Your task to perform on an android device: Search for Mexican restaurants on Maps Image 0: 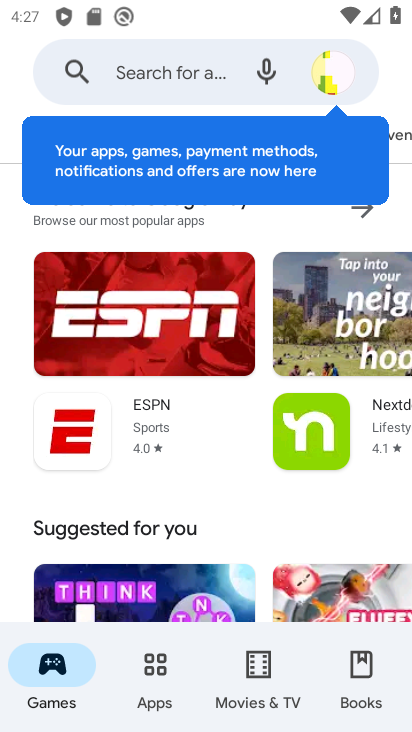
Step 0: press home button
Your task to perform on an android device: Search for Mexican restaurants on Maps Image 1: 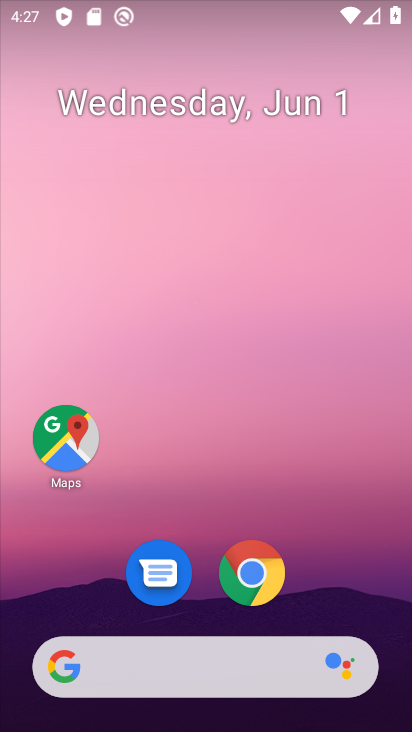
Step 1: drag from (161, 643) to (286, 143)
Your task to perform on an android device: Search for Mexican restaurants on Maps Image 2: 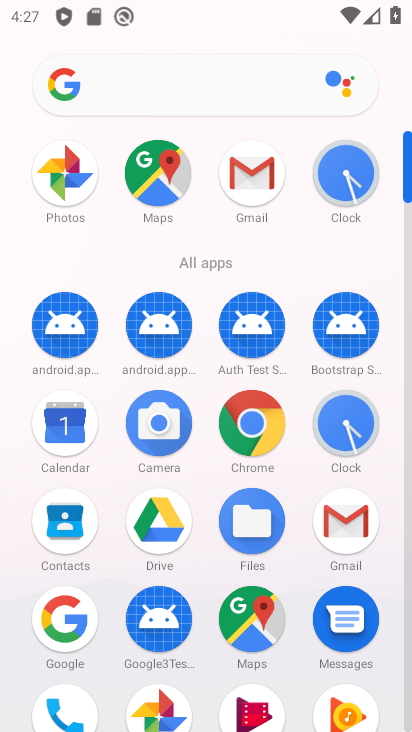
Step 2: drag from (154, 551) to (233, 290)
Your task to perform on an android device: Search for Mexican restaurants on Maps Image 3: 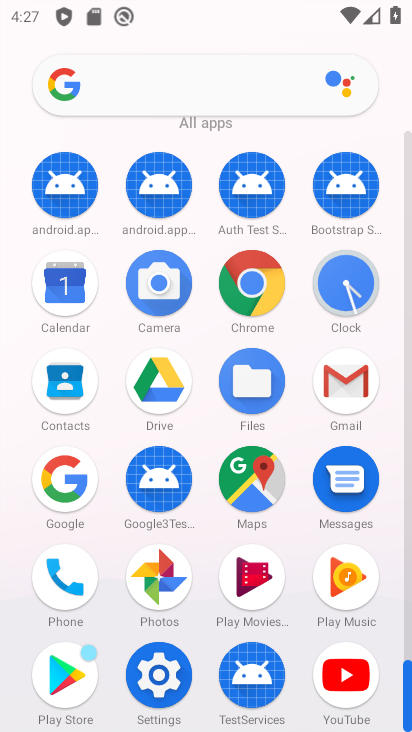
Step 3: click (242, 491)
Your task to perform on an android device: Search for Mexican restaurants on Maps Image 4: 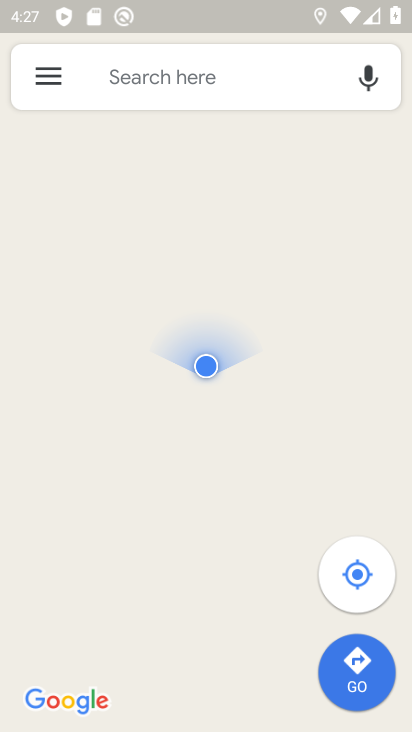
Step 4: click (183, 86)
Your task to perform on an android device: Search for Mexican restaurants on Maps Image 5: 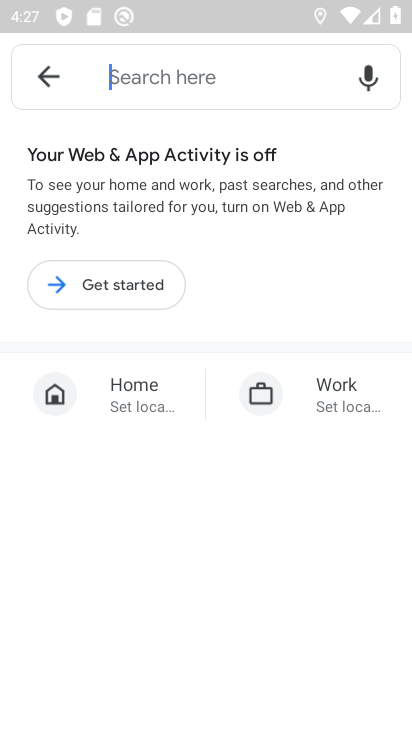
Step 5: click (228, 94)
Your task to perform on an android device: Search for Mexican restaurants on Maps Image 6: 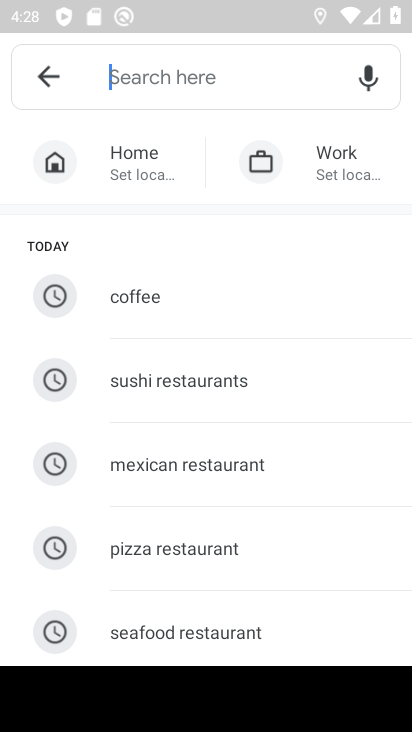
Step 6: type "Mexican restaurants"
Your task to perform on an android device: Search for Mexican restaurants on Maps Image 7: 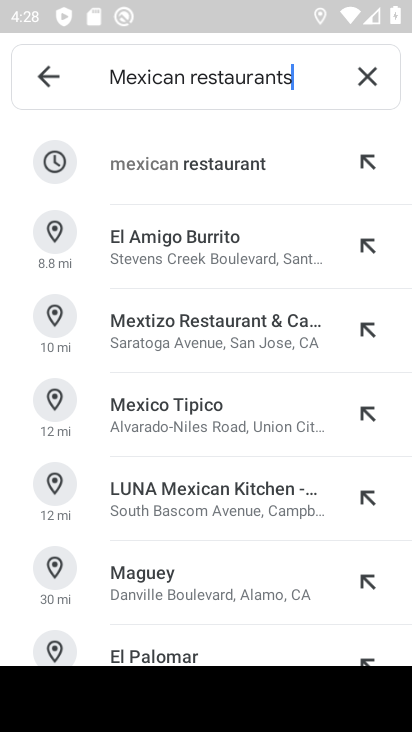
Step 7: click (210, 165)
Your task to perform on an android device: Search for Mexican restaurants on Maps Image 8: 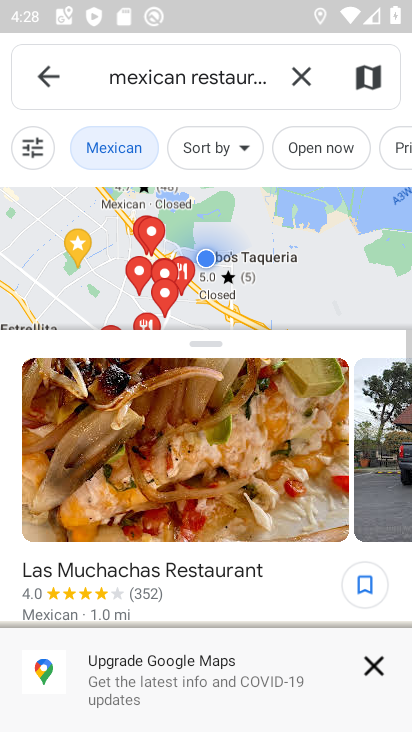
Step 8: task complete